Your task to perform on an android device: Go to Reddit.com Image 0: 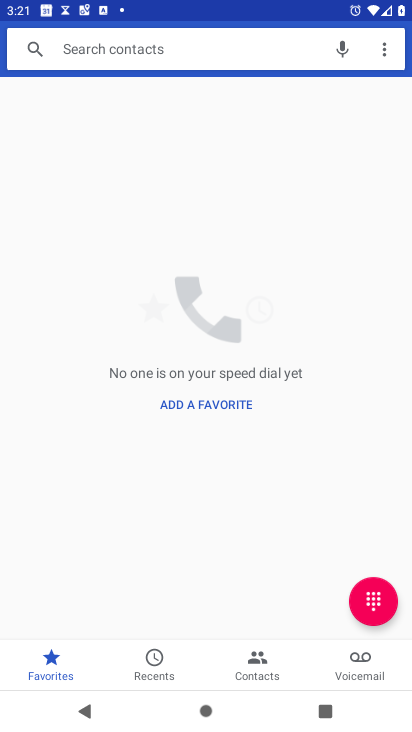
Step 0: press home button
Your task to perform on an android device: Go to Reddit.com Image 1: 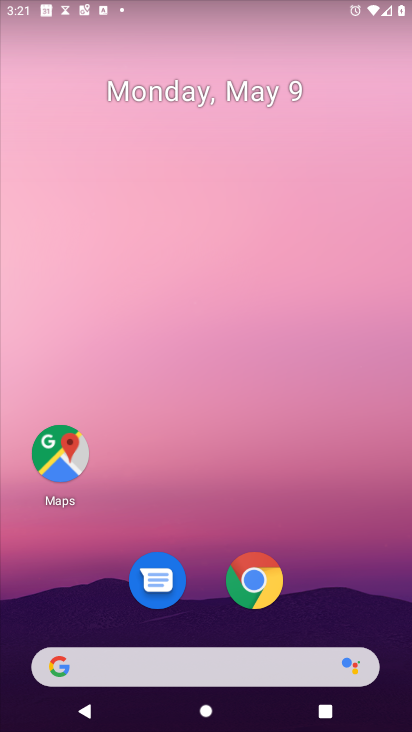
Step 1: click (266, 589)
Your task to perform on an android device: Go to Reddit.com Image 2: 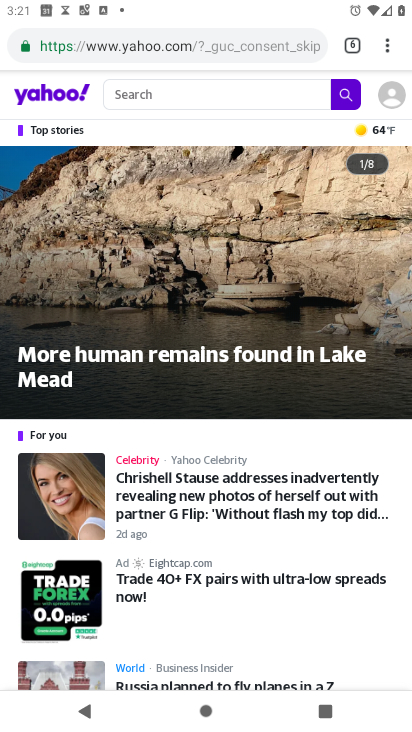
Step 2: click (190, 46)
Your task to perform on an android device: Go to Reddit.com Image 3: 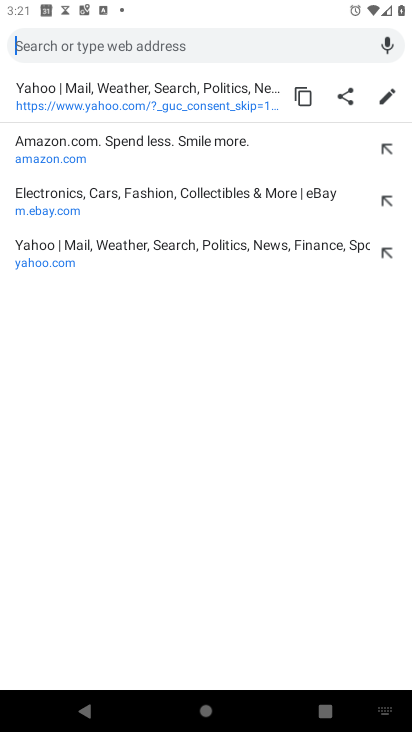
Step 3: type "reddit.com"
Your task to perform on an android device: Go to Reddit.com Image 4: 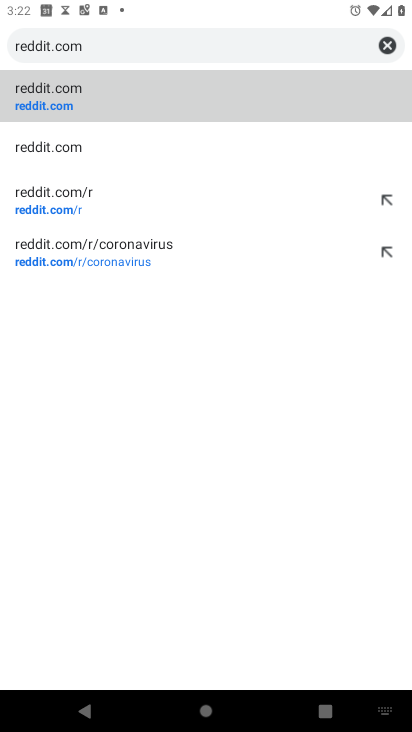
Step 4: click (93, 112)
Your task to perform on an android device: Go to Reddit.com Image 5: 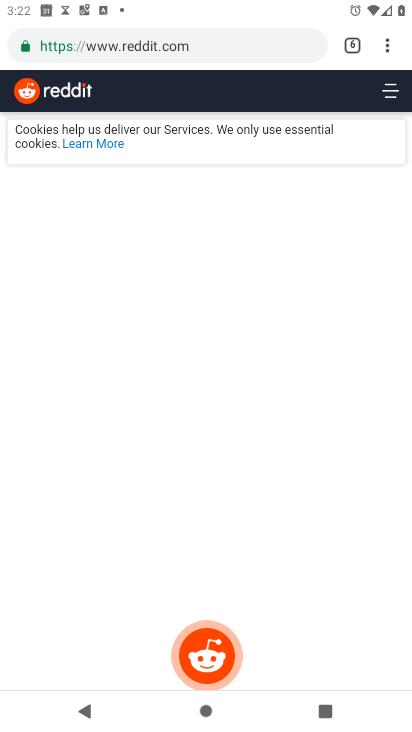
Step 5: task complete